Your task to perform on an android device: turn on the 24-hour format for clock Image 0: 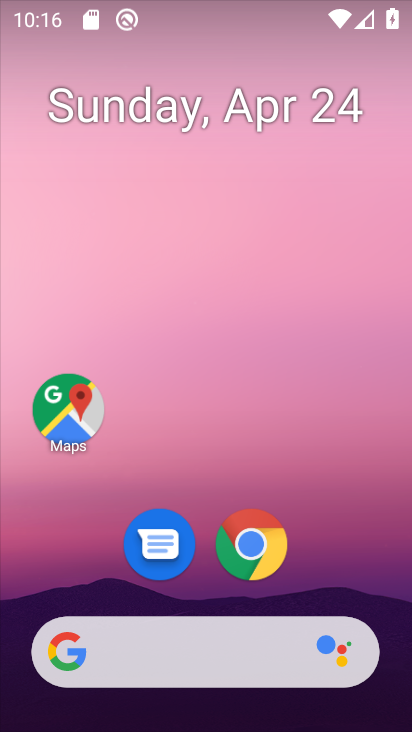
Step 0: drag from (339, 575) to (354, 365)
Your task to perform on an android device: turn on the 24-hour format for clock Image 1: 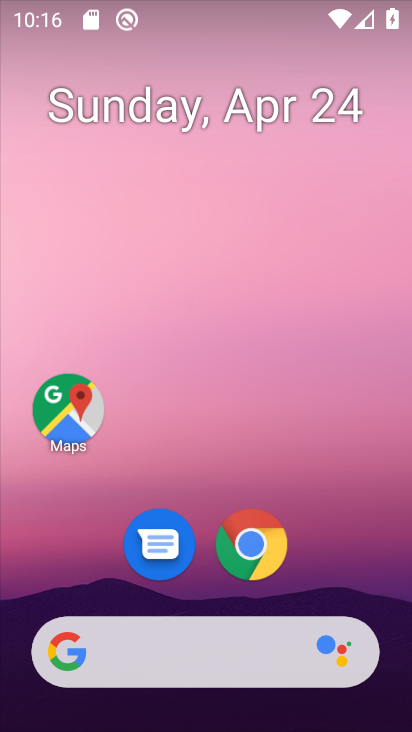
Step 1: drag from (359, 603) to (322, 301)
Your task to perform on an android device: turn on the 24-hour format for clock Image 2: 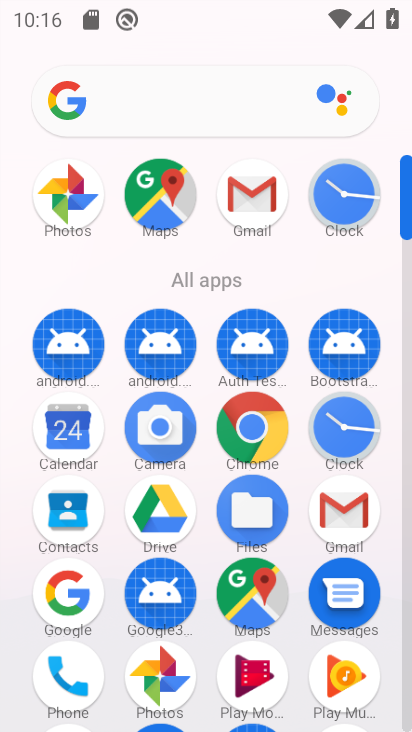
Step 2: drag from (347, 214) to (335, 182)
Your task to perform on an android device: turn on the 24-hour format for clock Image 3: 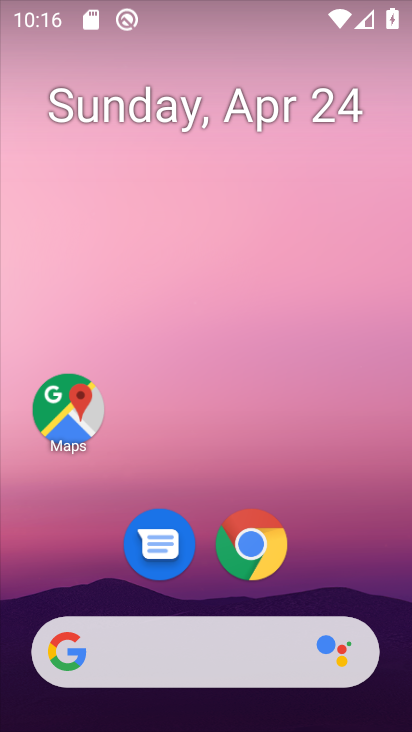
Step 3: drag from (319, 515) to (291, 317)
Your task to perform on an android device: turn on the 24-hour format for clock Image 4: 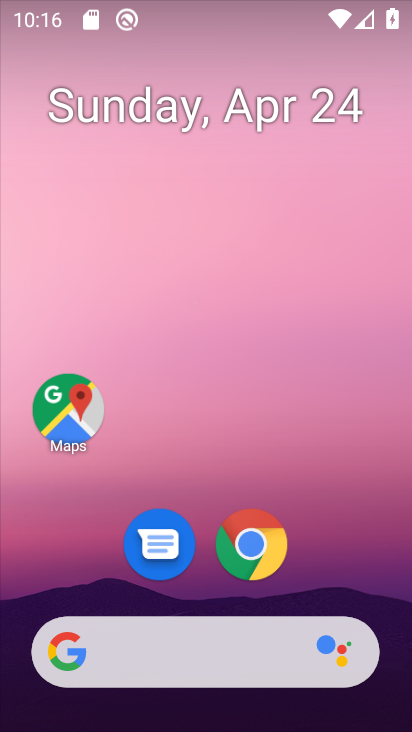
Step 4: drag from (313, 571) to (312, 273)
Your task to perform on an android device: turn on the 24-hour format for clock Image 5: 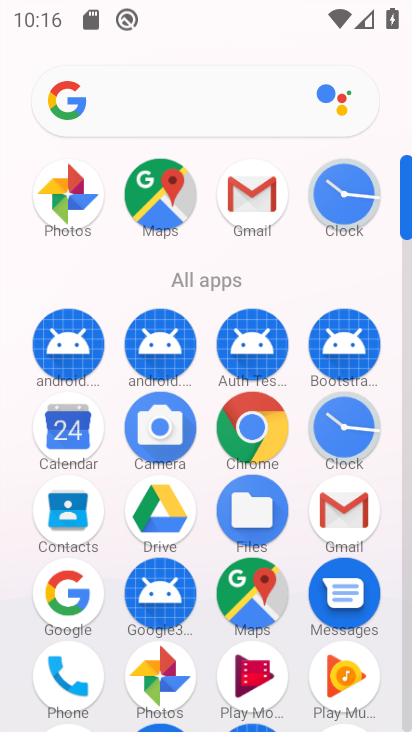
Step 5: click (327, 412)
Your task to perform on an android device: turn on the 24-hour format for clock Image 6: 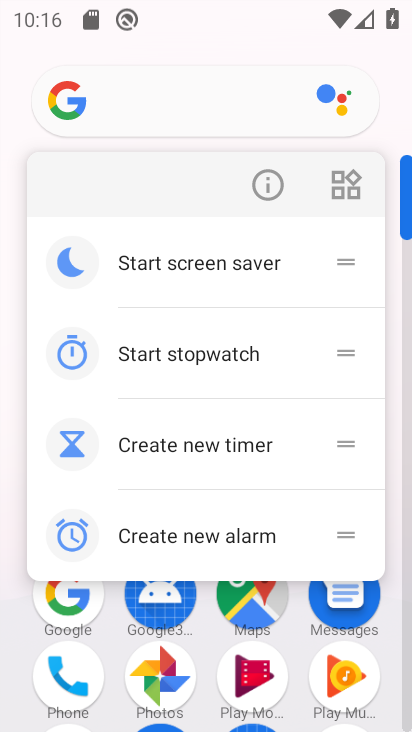
Step 6: press back button
Your task to perform on an android device: turn on the 24-hour format for clock Image 7: 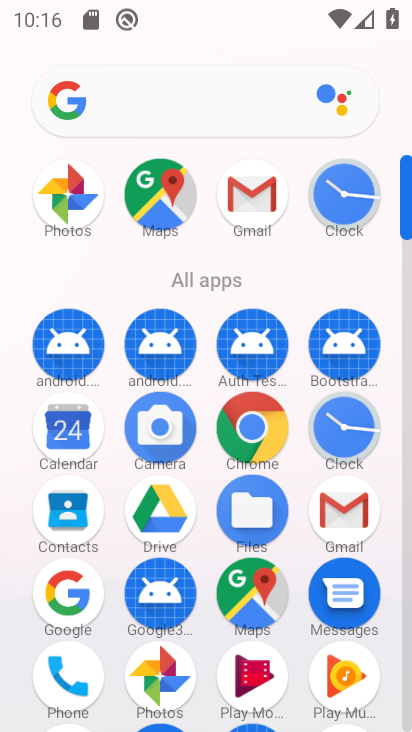
Step 7: click (341, 425)
Your task to perform on an android device: turn on the 24-hour format for clock Image 8: 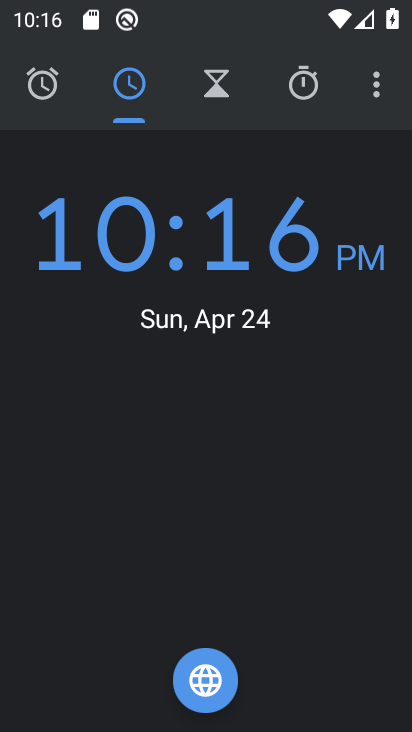
Step 8: click (373, 82)
Your task to perform on an android device: turn on the 24-hour format for clock Image 9: 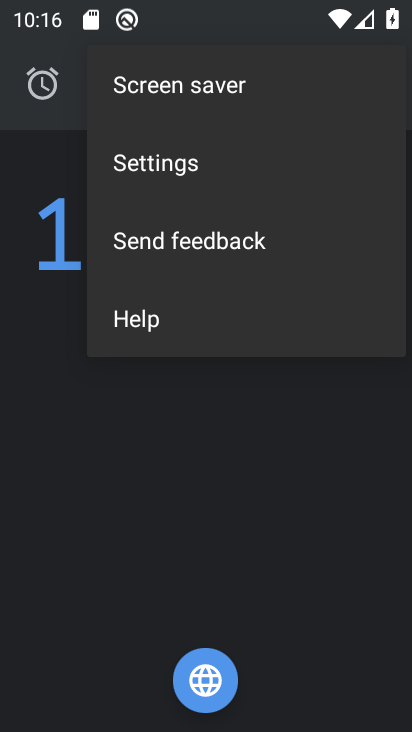
Step 9: click (232, 164)
Your task to perform on an android device: turn on the 24-hour format for clock Image 10: 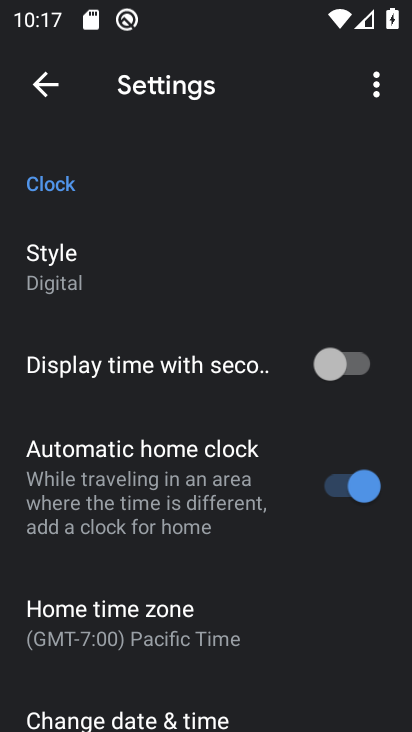
Step 10: drag from (227, 607) to (214, 251)
Your task to perform on an android device: turn on the 24-hour format for clock Image 11: 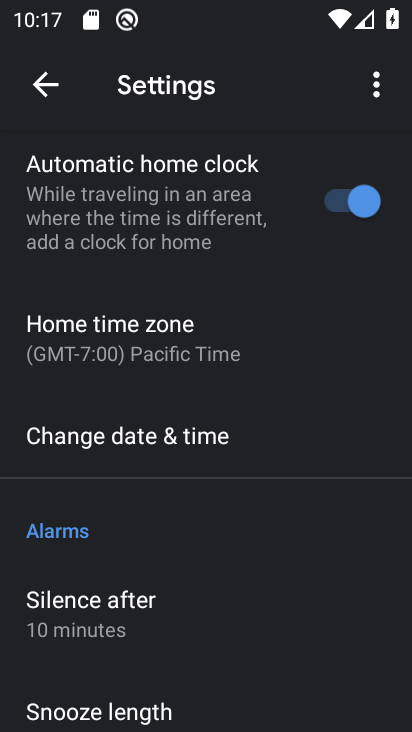
Step 11: click (185, 438)
Your task to perform on an android device: turn on the 24-hour format for clock Image 12: 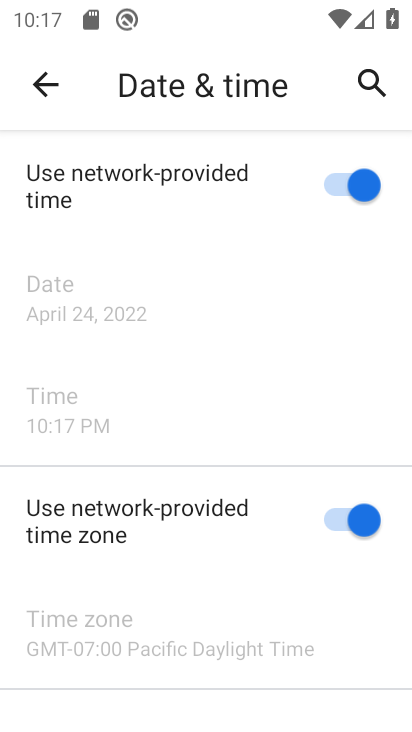
Step 12: drag from (226, 582) to (258, 259)
Your task to perform on an android device: turn on the 24-hour format for clock Image 13: 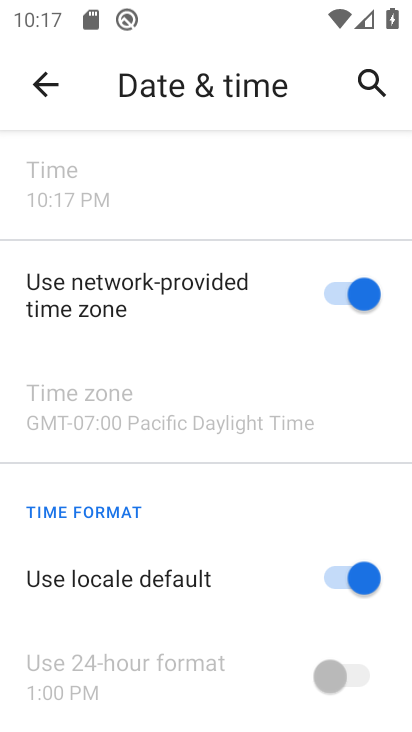
Step 13: click (341, 572)
Your task to perform on an android device: turn on the 24-hour format for clock Image 14: 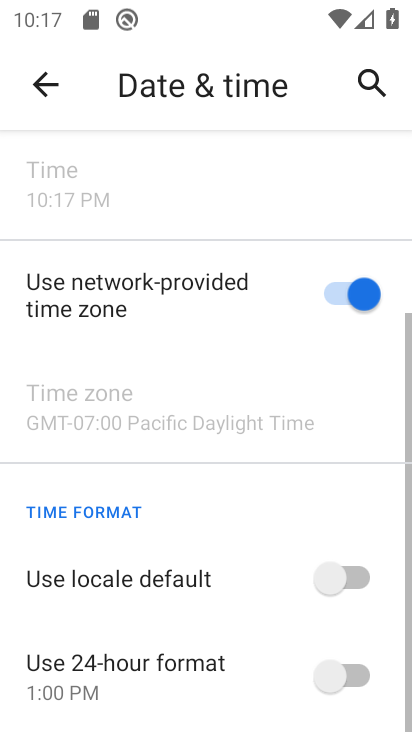
Step 14: click (350, 672)
Your task to perform on an android device: turn on the 24-hour format for clock Image 15: 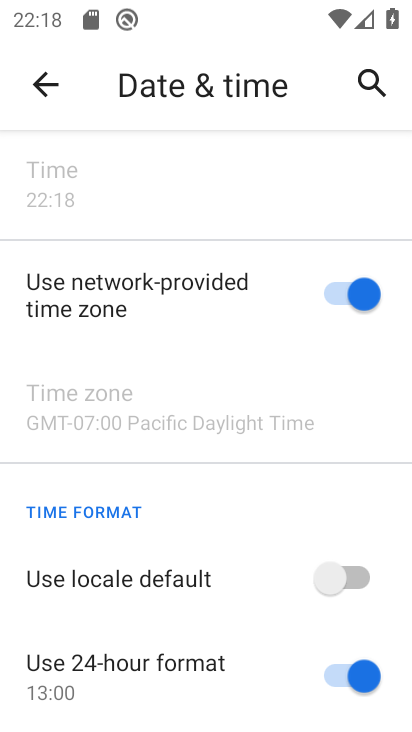
Step 15: task complete